Your task to perform on an android device: Search for a new lawnmower on Lowes. Image 0: 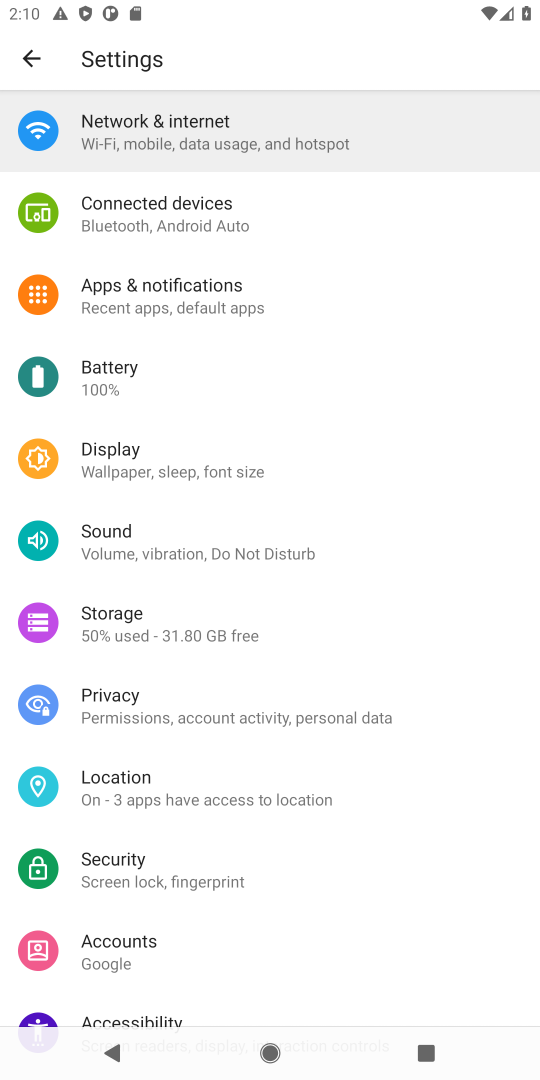
Step 0: press home button
Your task to perform on an android device: Search for a new lawnmower on Lowes. Image 1: 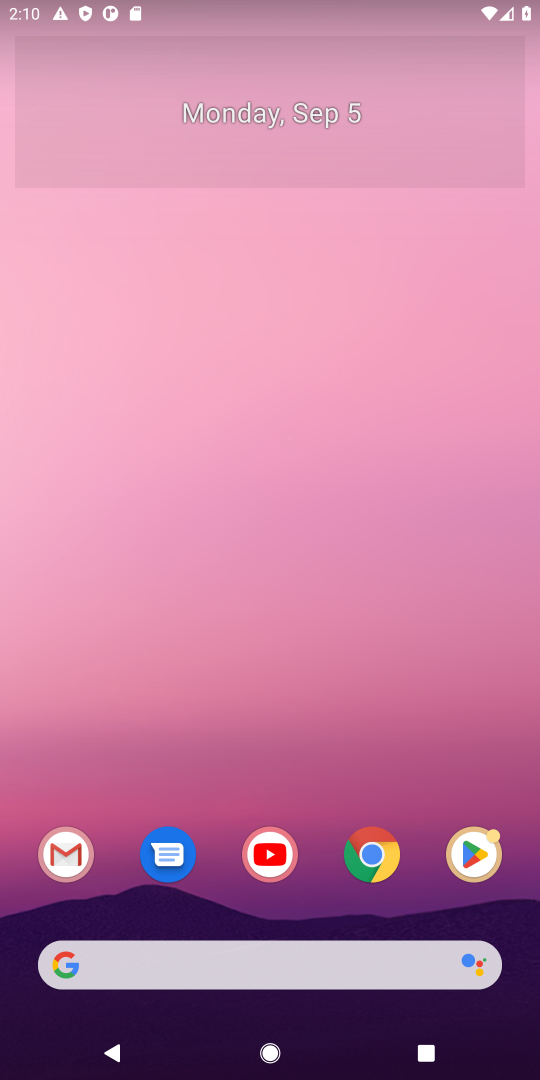
Step 1: click (387, 961)
Your task to perform on an android device: Search for a new lawnmower on Lowes. Image 2: 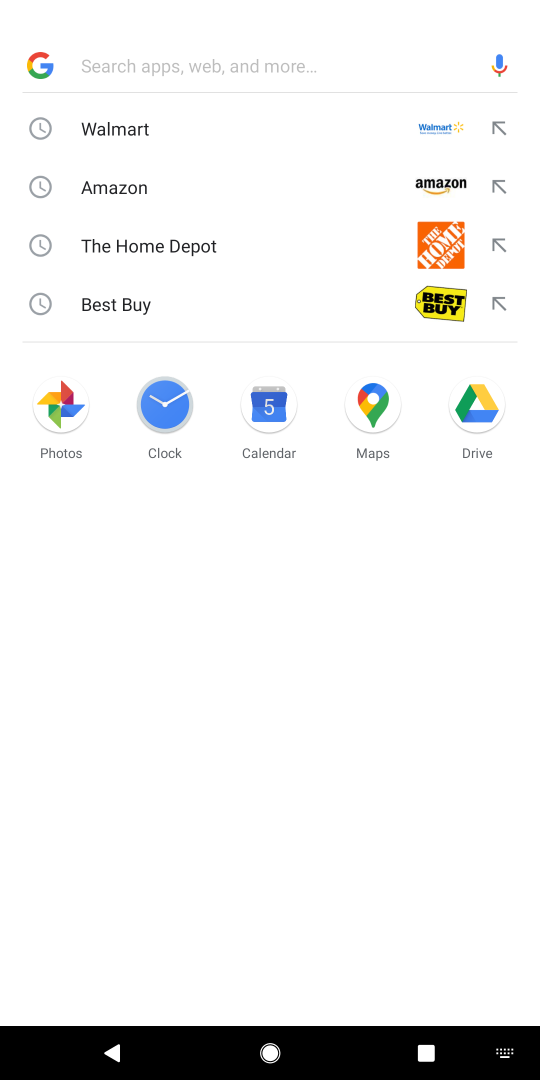
Step 2: type "lowes"
Your task to perform on an android device: Search for a new lawnmower on Lowes. Image 3: 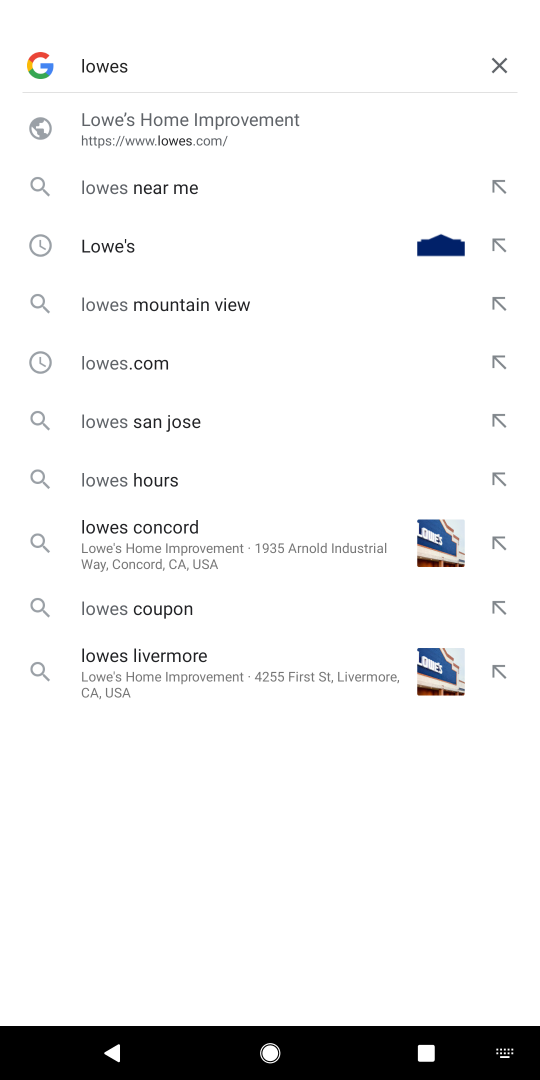
Step 3: press enter
Your task to perform on an android device: Search for a new lawnmower on Lowes. Image 4: 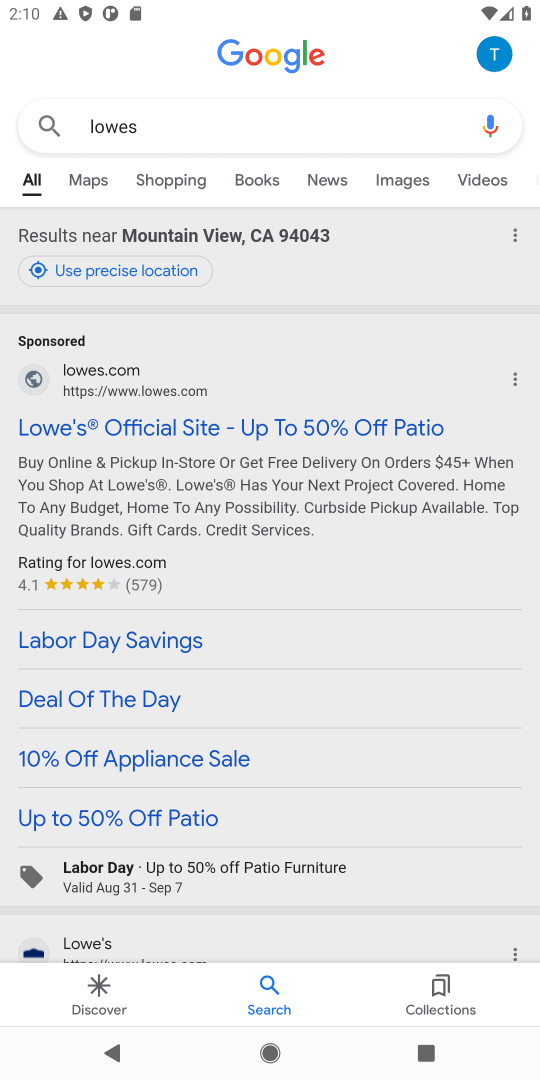
Step 4: click (137, 420)
Your task to perform on an android device: Search for a new lawnmower on Lowes. Image 5: 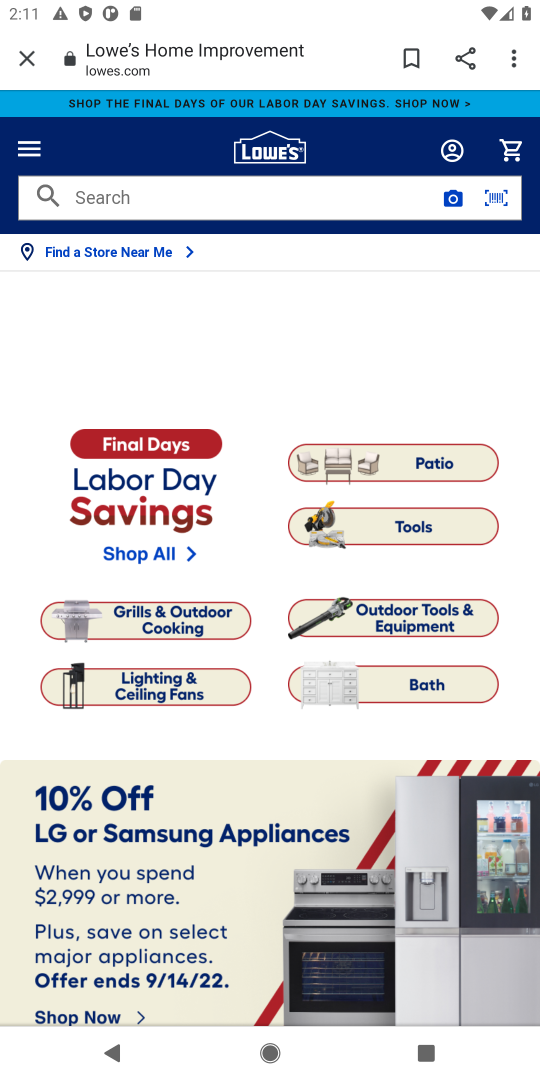
Step 5: click (158, 197)
Your task to perform on an android device: Search for a new lawnmower on Lowes. Image 6: 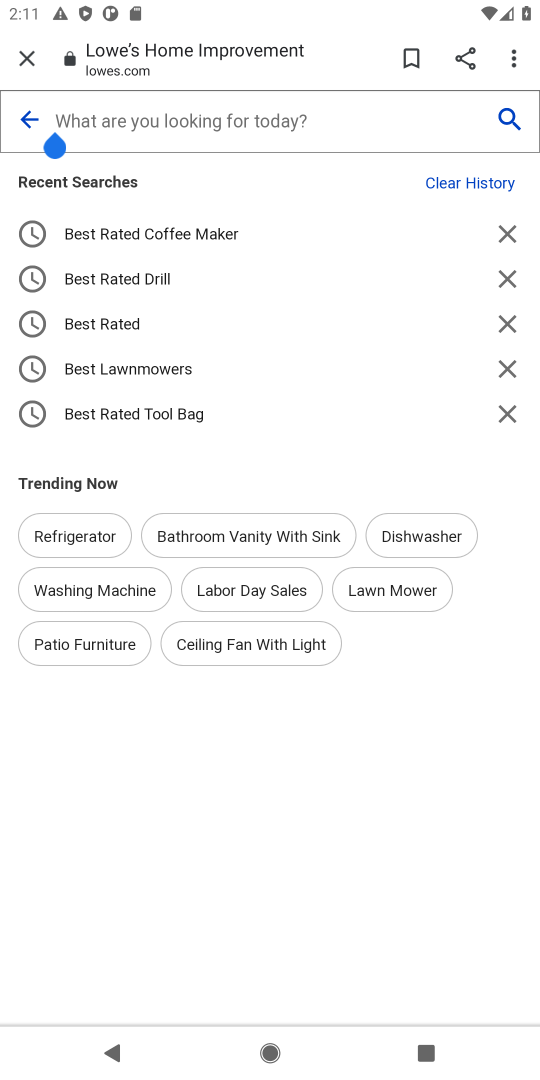
Step 6: press enter
Your task to perform on an android device: Search for a new lawnmower on Lowes. Image 7: 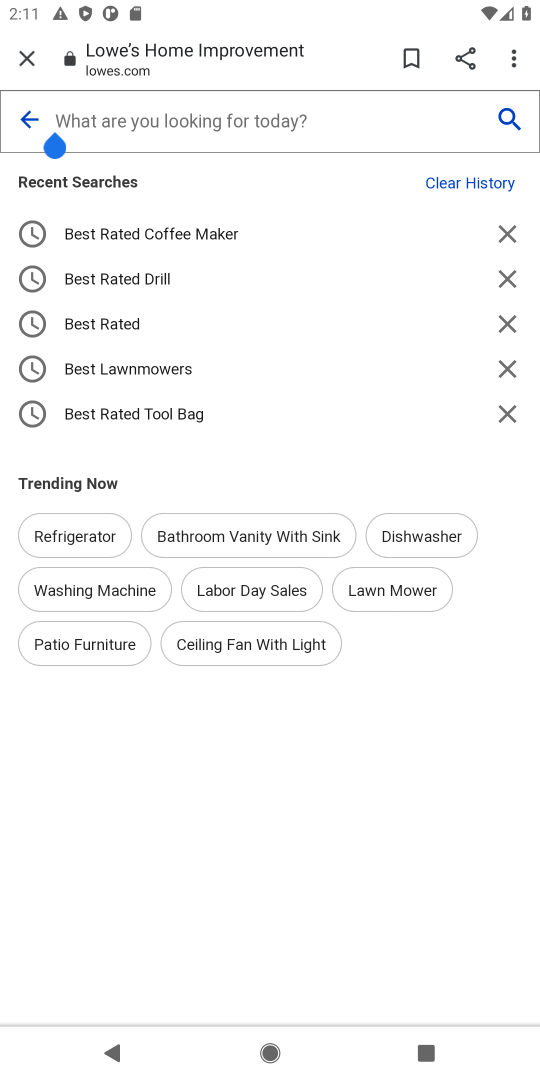
Step 7: type "new lawnmower"
Your task to perform on an android device: Search for a new lawnmower on Lowes. Image 8: 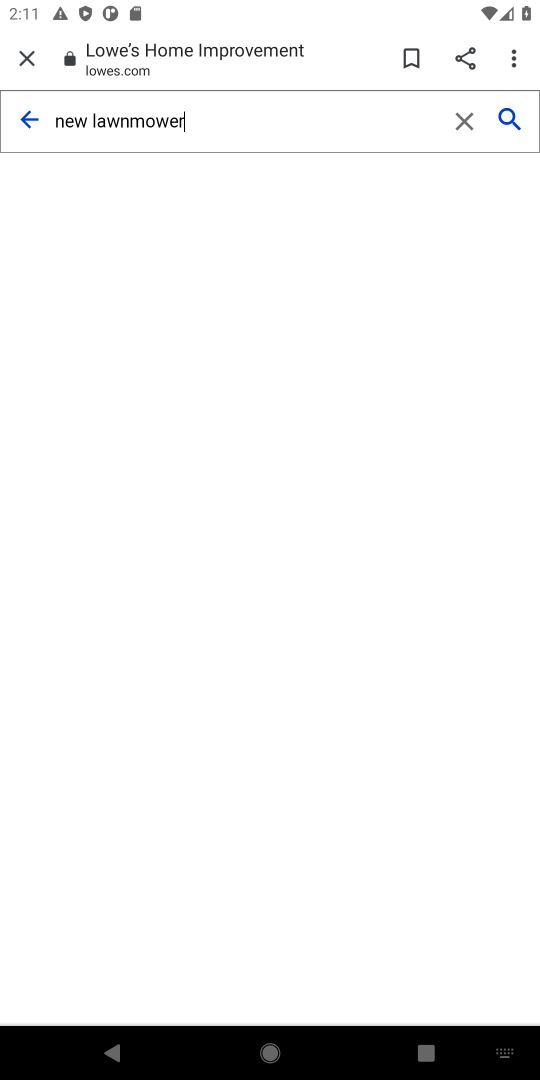
Step 8: click (511, 120)
Your task to perform on an android device: Search for a new lawnmower on Lowes. Image 9: 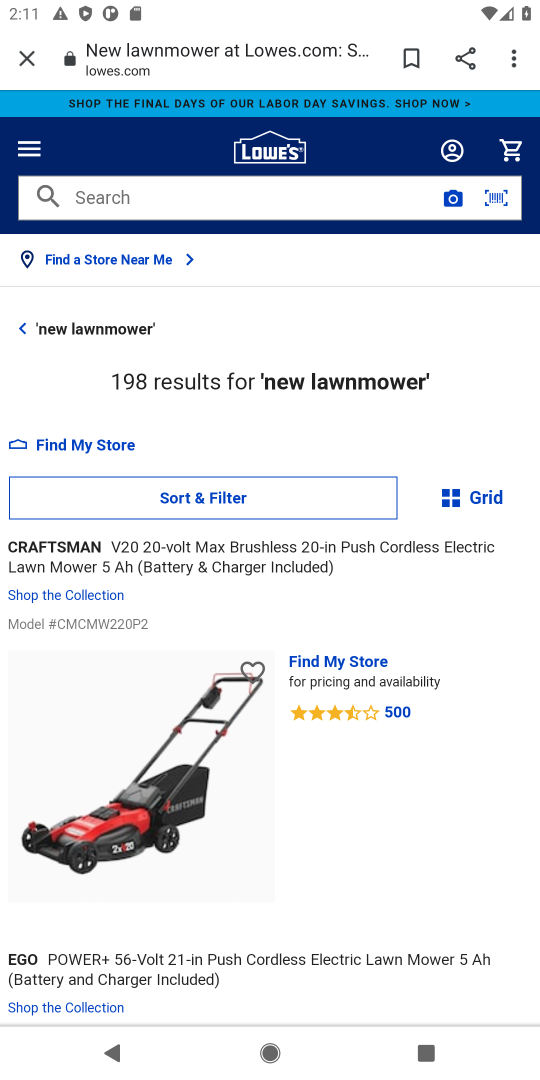
Step 9: task complete